Your task to perform on an android device: What's the weather today? Image 0: 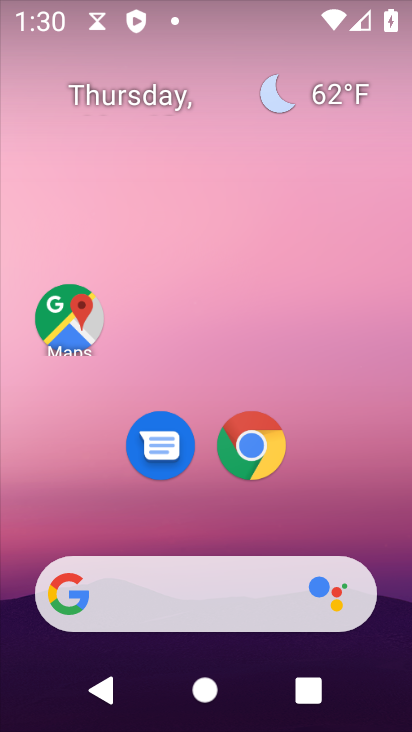
Step 0: click (131, 589)
Your task to perform on an android device: What's the weather today? Image 1: 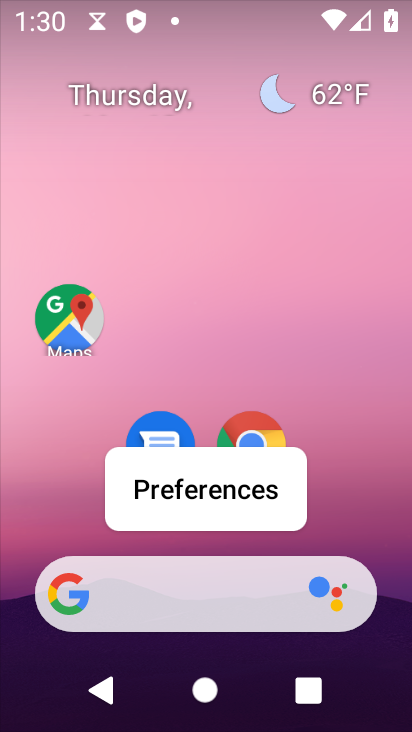
Step 1: click (190, 570)
Your task to perform on an android device: What's the weather today? Image 2: 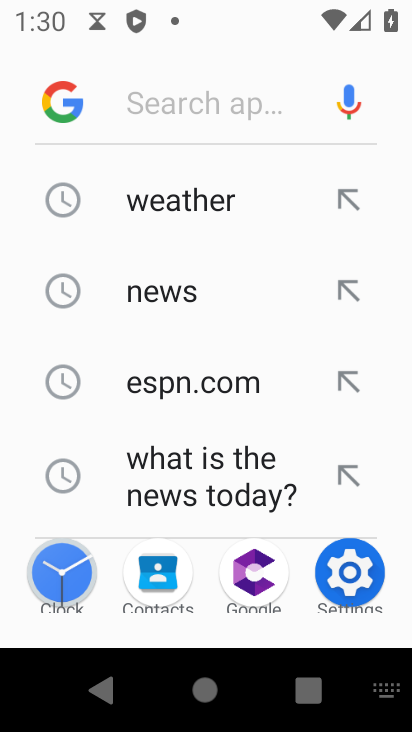
Step 2: type "what's the weather  today"
Your task to perform on an android device: What's the weather today? Image 3: 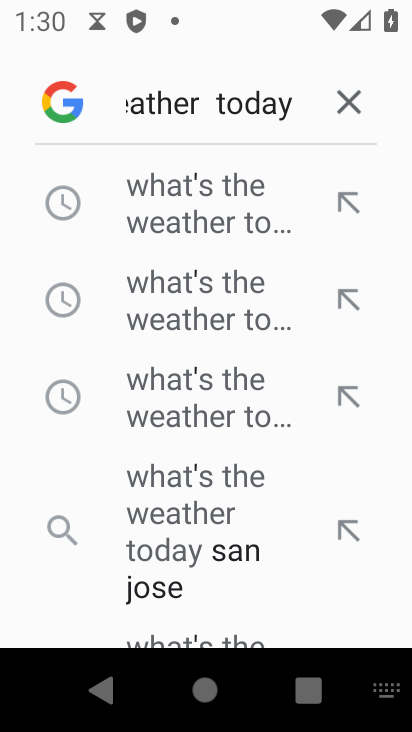
Step 3: click (164, 230)
Your task to perform on an android device: What's the weather today? Image 4: 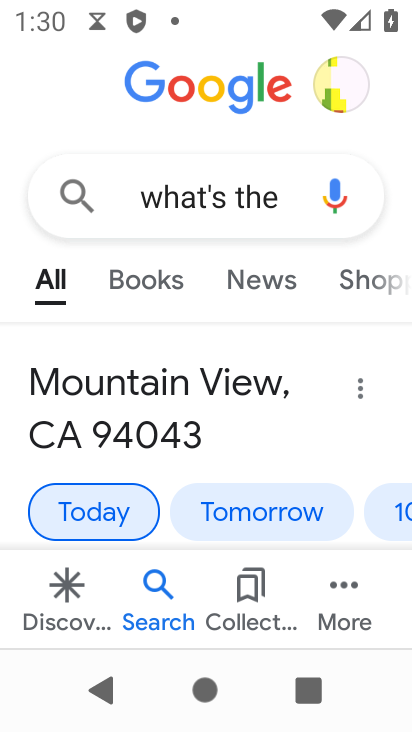
Step 4: task complete